Your task to perform on an android device: Open notification settings Image 0: 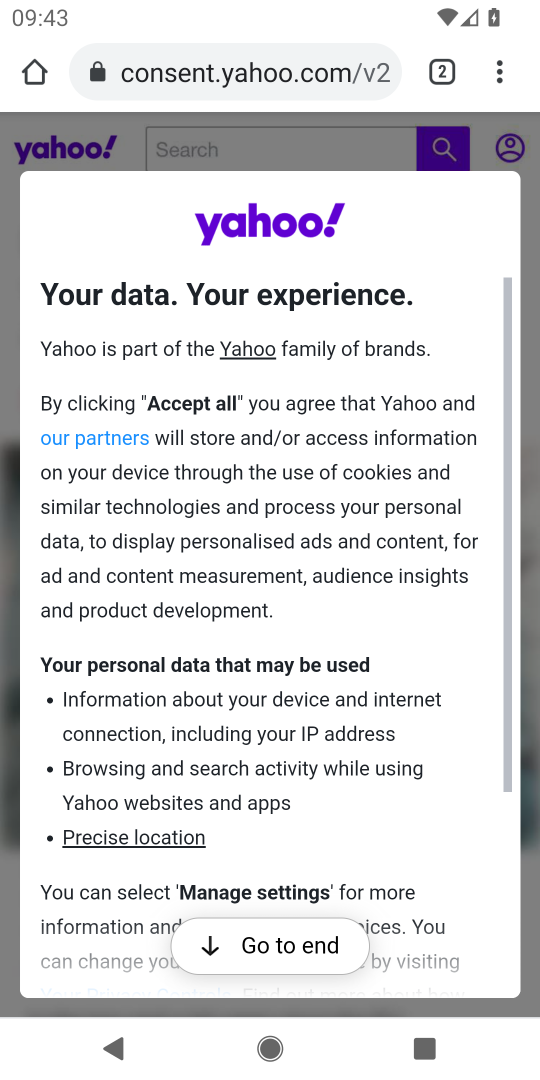
Step 0: press home button
Your task to perform on an android device: Open notification settings Image 1: 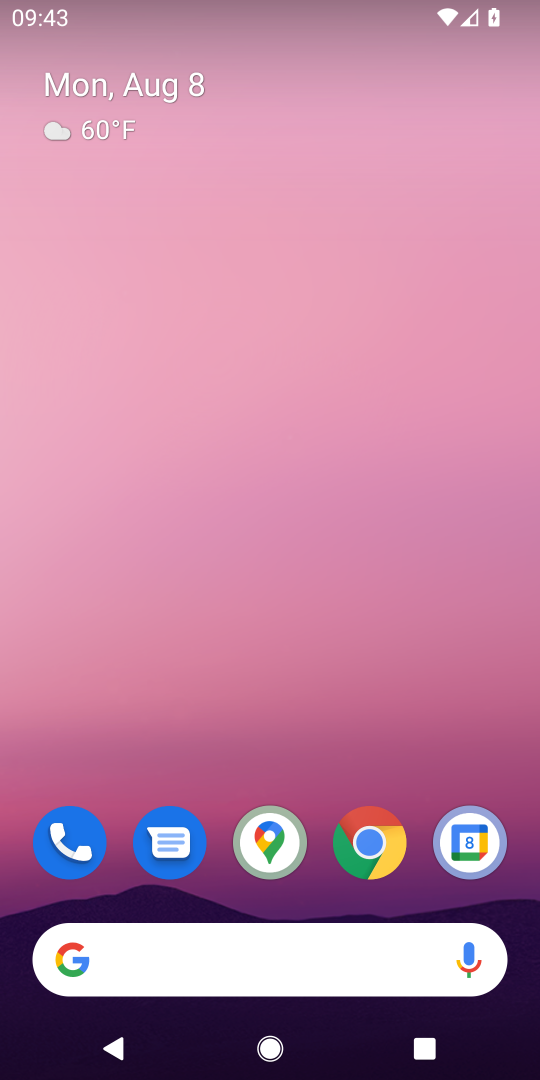
Step 1: drag from (257, 751) to (253, 103)
Your task to perform on an android device: Open notification settings Image 2: 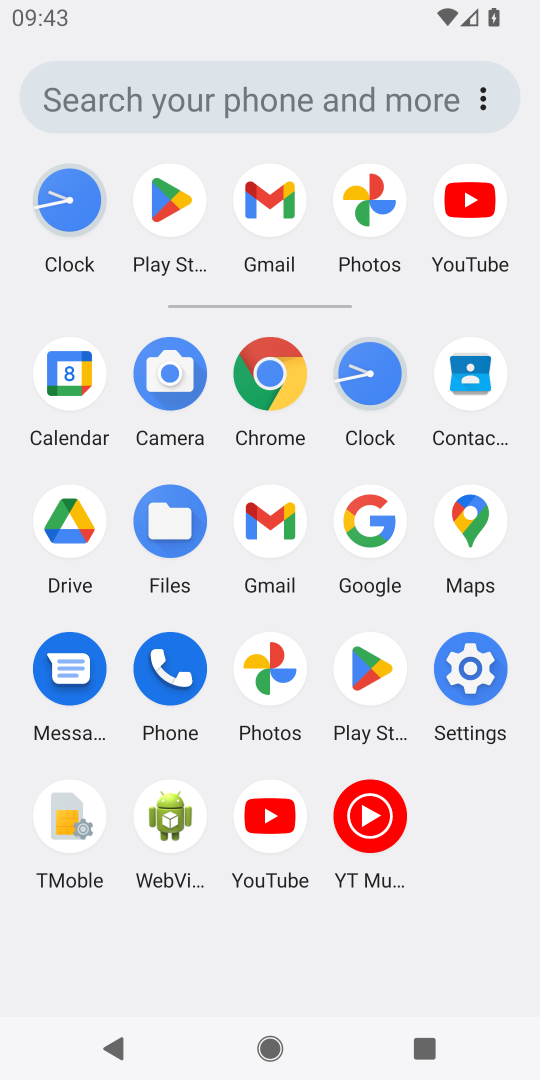
Step 2: click (474, 653)
Your task to perform on an android device: Open notification settings Image 3: 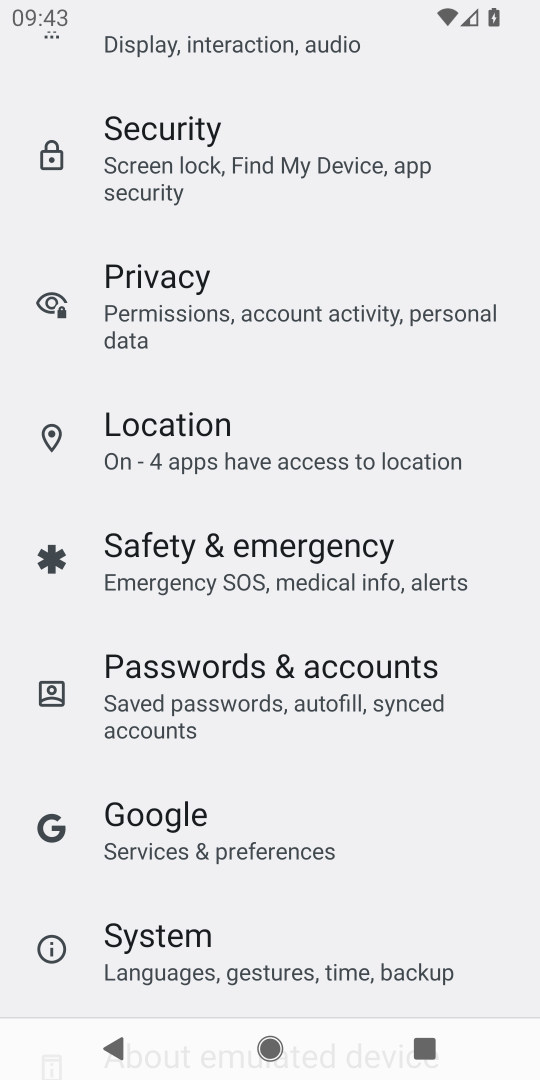
Step 3: drag from (287, 121) to (285, 493)
Your task to perform on an android device: Open notification settings Image 4: 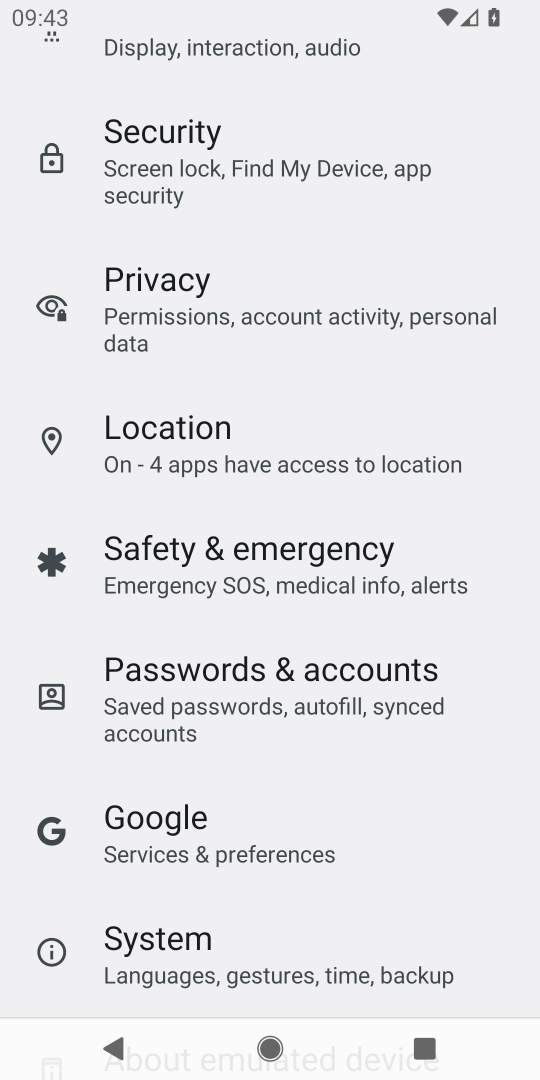
Step 4: drag from (266, 192) to (284, 575)
Your task to perform on an android device: Open notification settings Image 5: 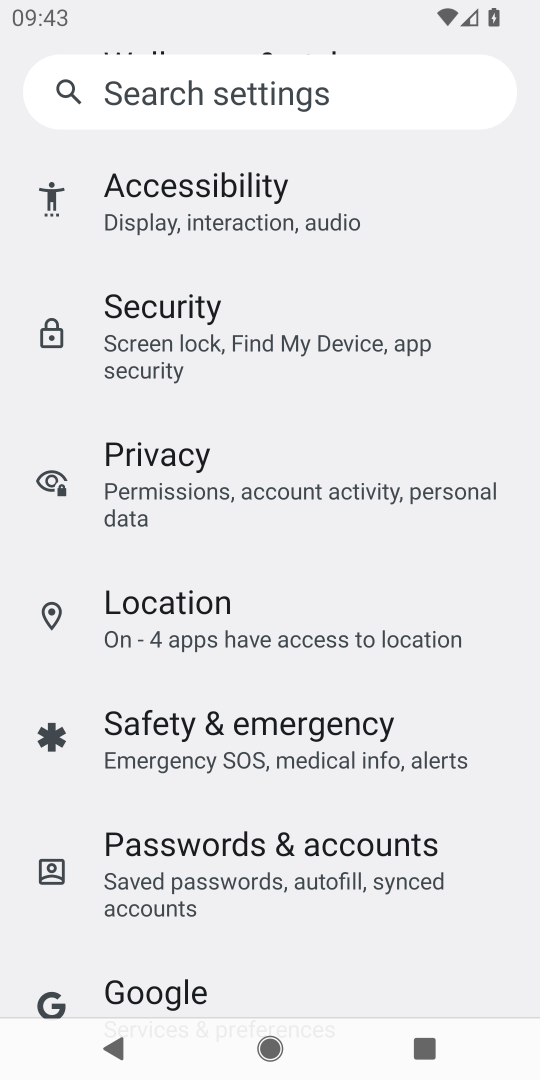
Step 5: drag from (273, 309) to (273, 650)
Your task to perform on an android device: Open notification settings Image 6: 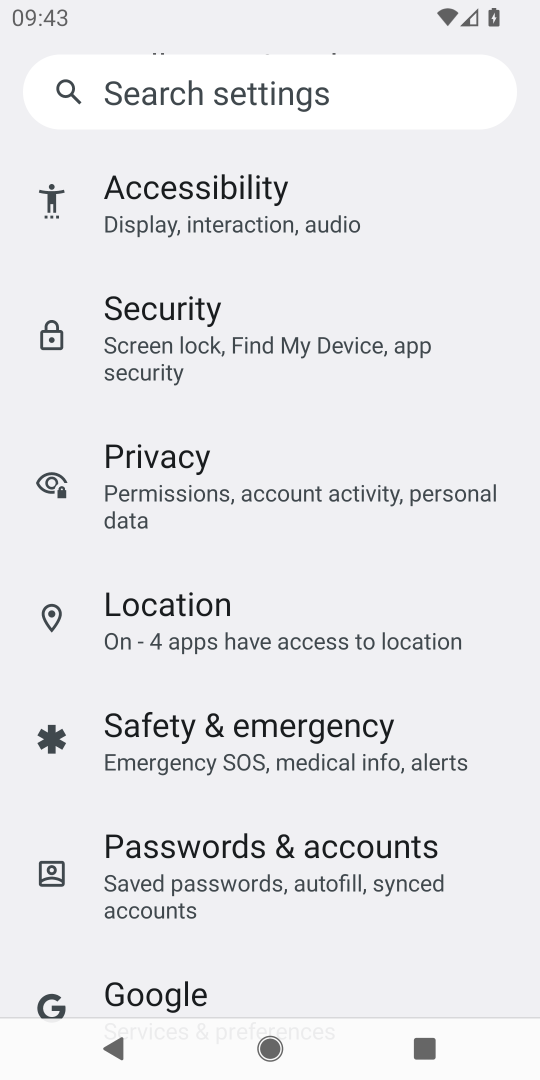
Step 6: drag from (438, 228) to (438, 626)
Your task to perform on an android device: Open notification settings Image 7: 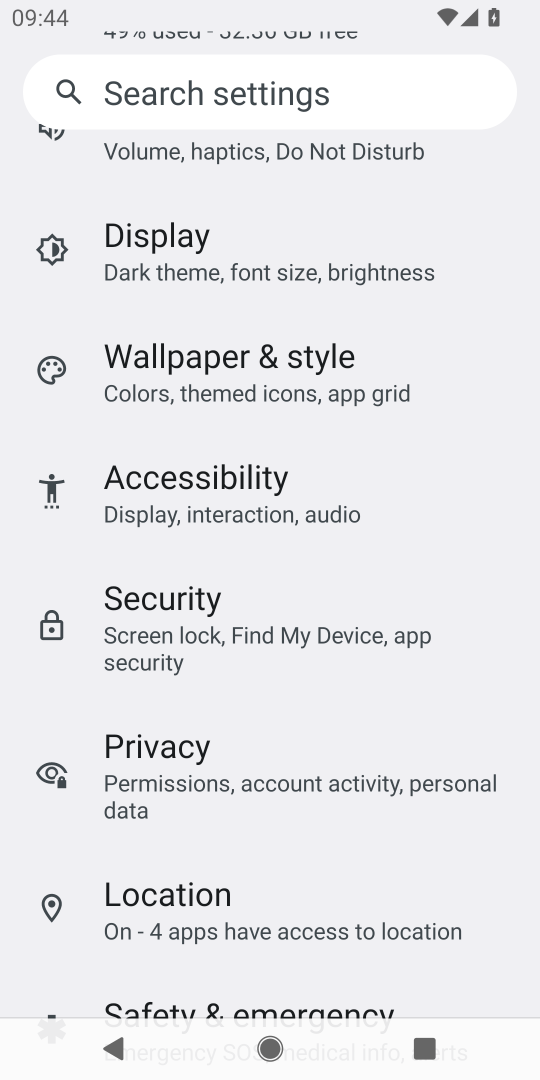
Step 7: drag from (370, 258) to (370, 850)
Your task to perform on an android device: Open notification settings Image 8: 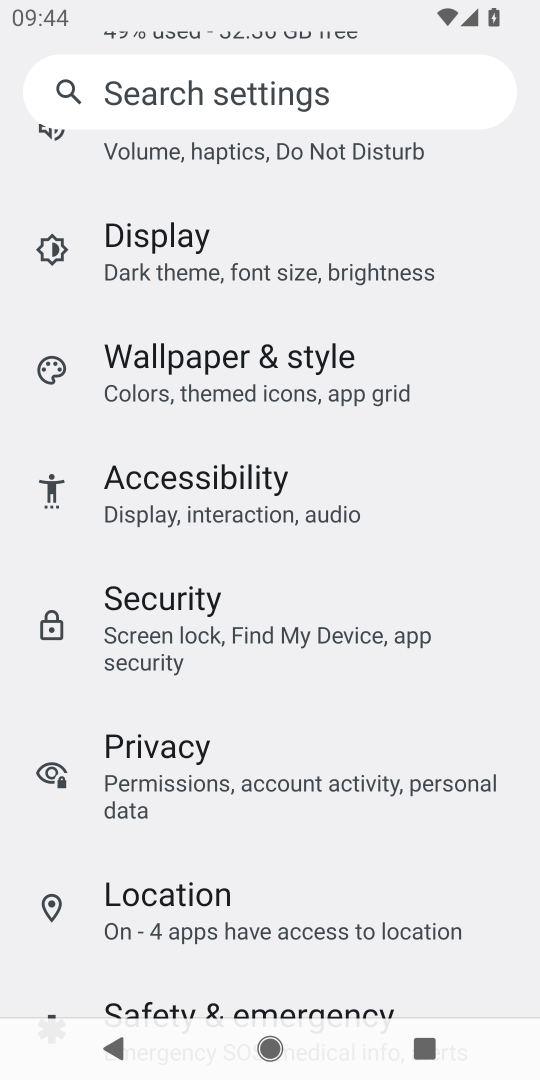
Step 8: drag from (418, 199) to (428, 980)
Your task to perform on an android device: Open notification settings Image 9: 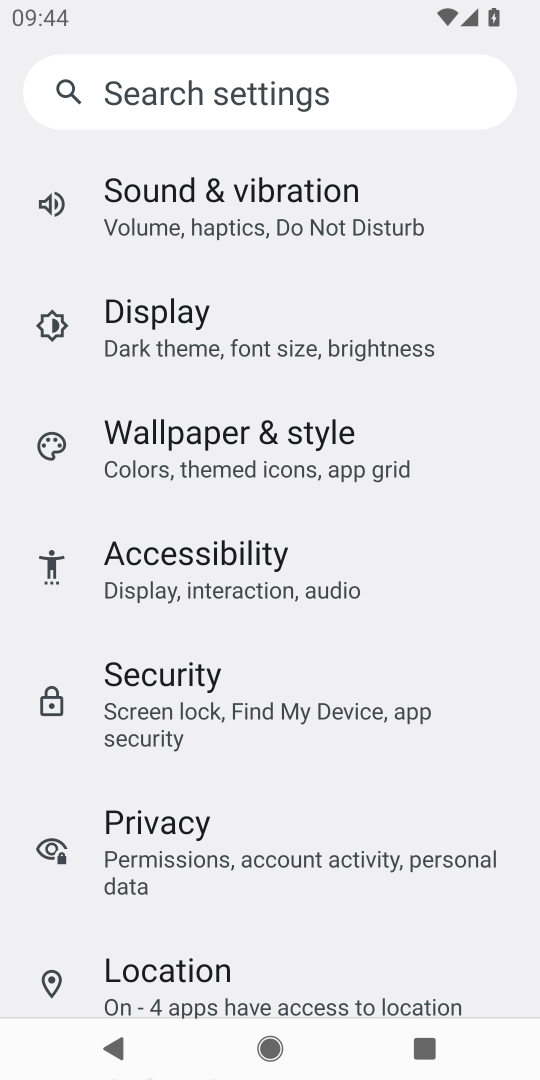
Step 9: drag from (443, 147) to (443, 688)
Your task to perform on an android device: Open notification settings Image 10: 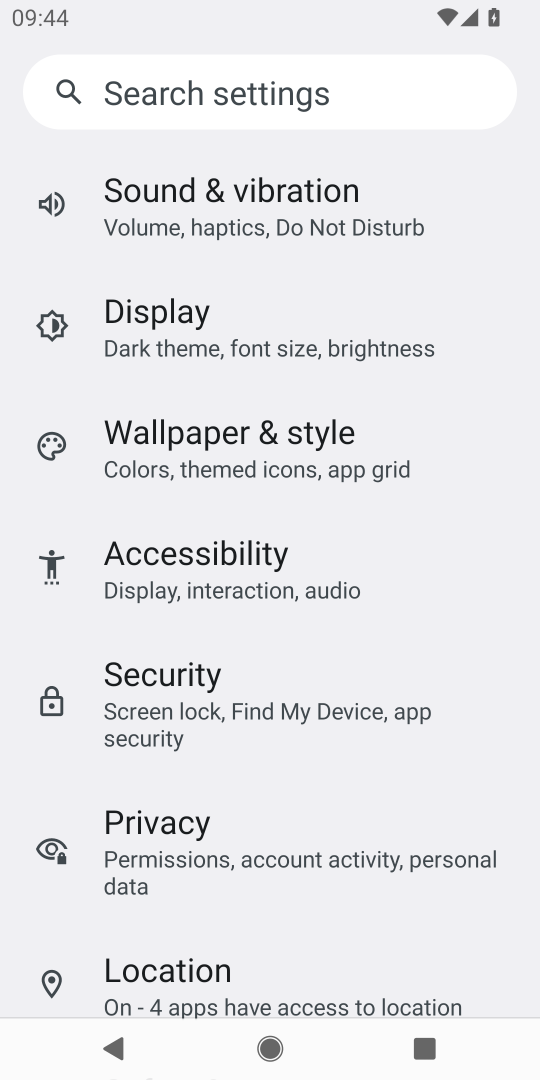
Step 10: drag from (392, 166) to (392, 576)
Your task to perform on an android device: Open notification settings Image 11: 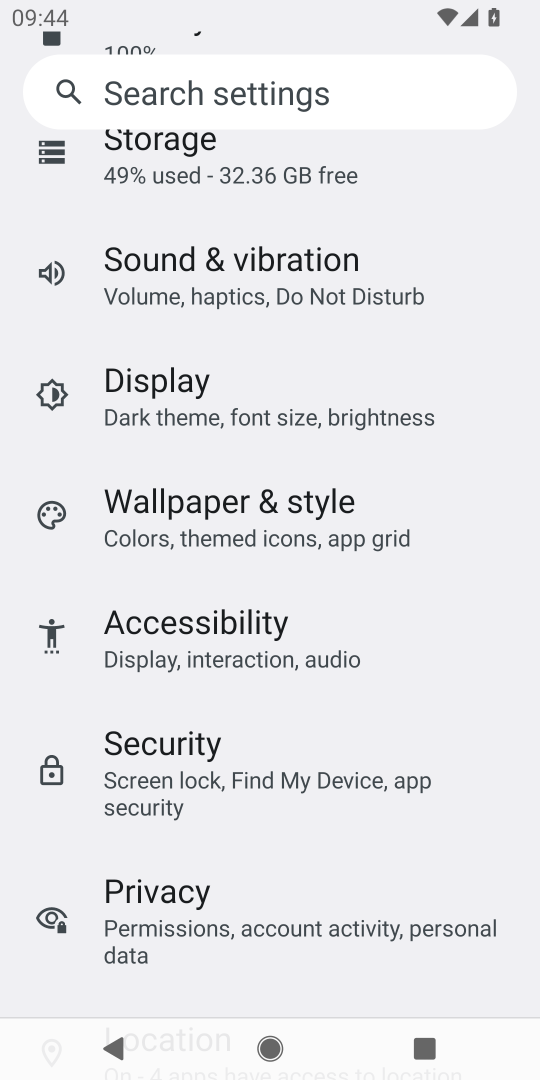
Step 11: drag from (385, 186) to (385, 581)
Your task to perform on an android device: Open notification settings Image 12: 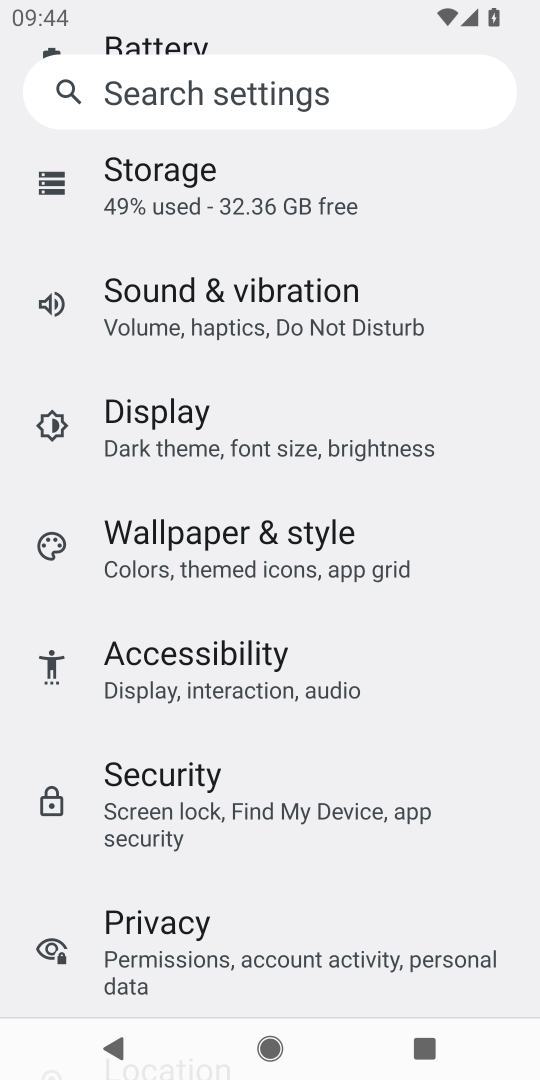
Step 12: drag from (351, 242) to (351, 690)
Your task to perform on an android device: Open notification settings Image 13: 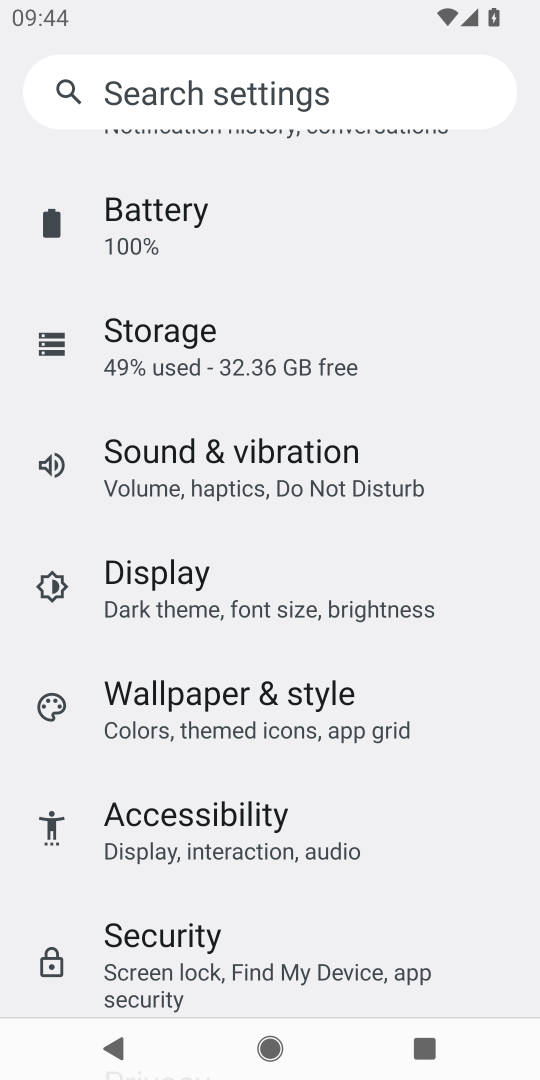
Step 13: drag from (401, 191) to (415, 648)
Your task to perform on an android device: Open notification settings Image 14: 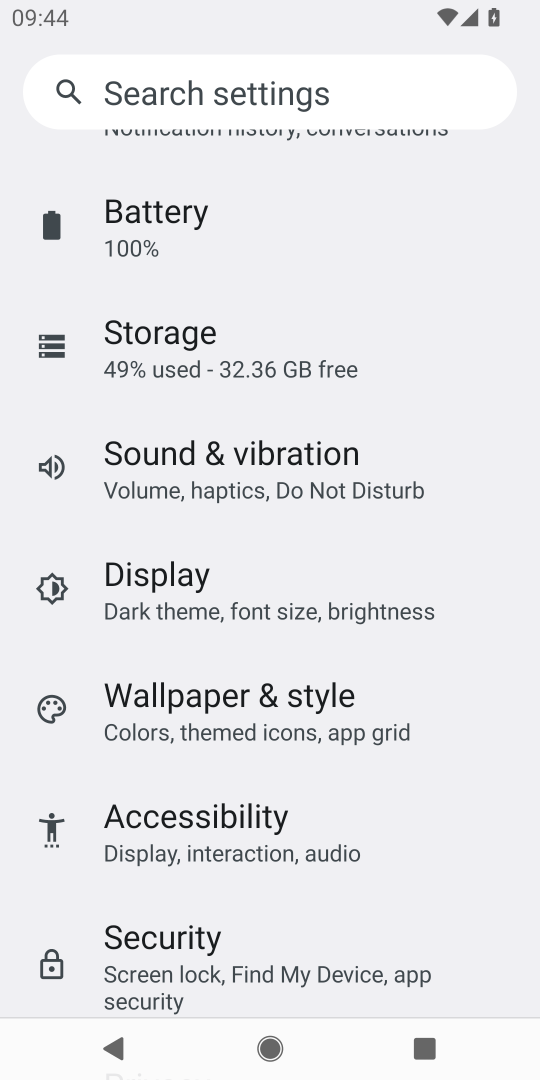
Step 14: drag from (327, 214) to (325, 540)
Your task to perform on an android device: Open notification settings Image 15: 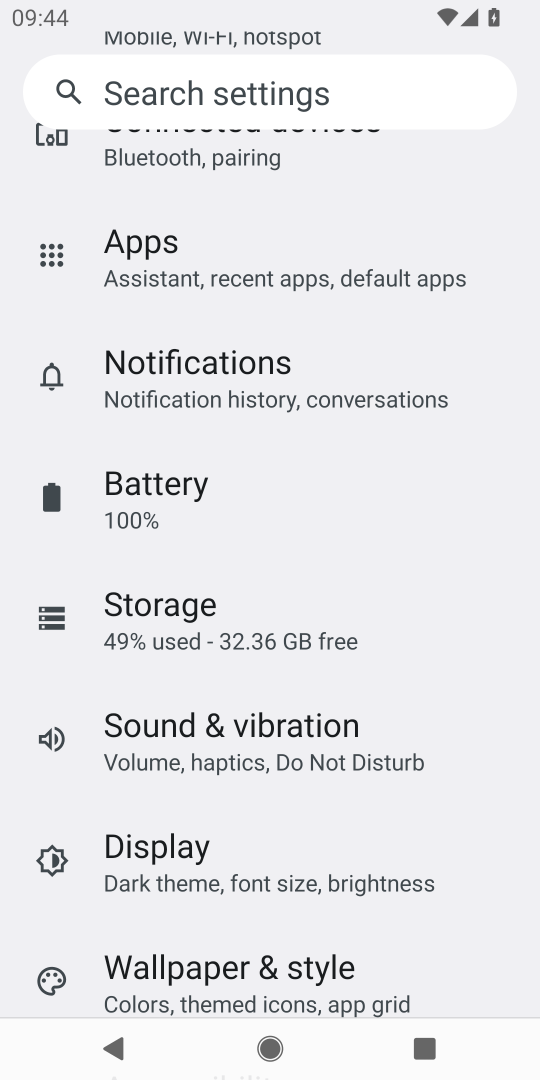
Step 15: click (209, 386)
Your task to perform on an android device: Open notification settings Image 16: 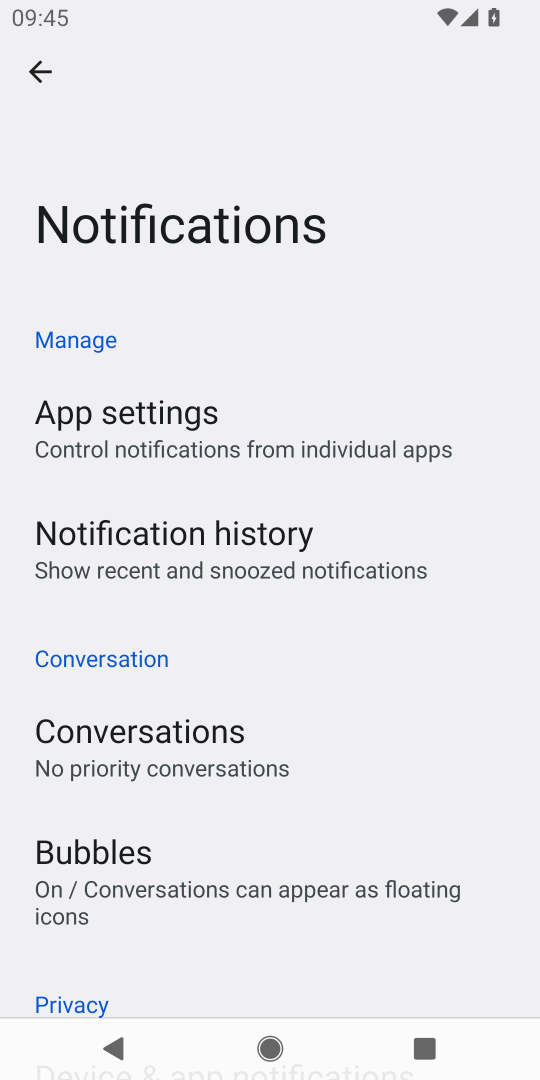
Step 16: task complete